Your task to perform on an android device: Search for pizza restaurants on Maps Image 0: 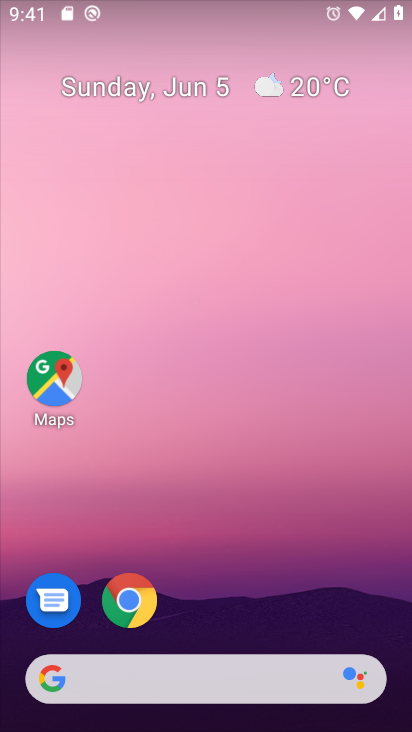
Step 0: click (59, 393)
Your task to perform on an android device: Search for pizza restaurants on Maps Image 1: 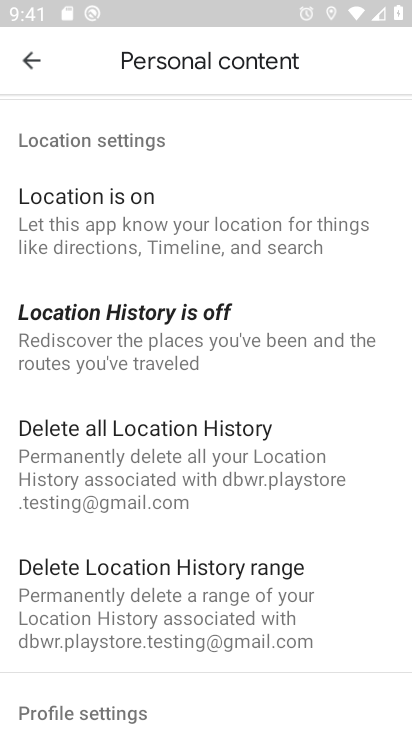
Step 1: click (32, 59)
Your task to perform on an android device: Search for pizza restaurants on Maps Image 2: 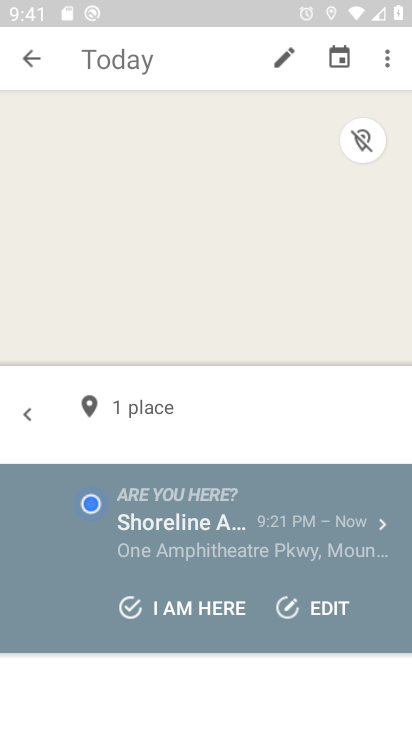
Step 2: click (32, 59)
Your task to perform on an android device: Search for pizza restaurants on Maps Image 3: 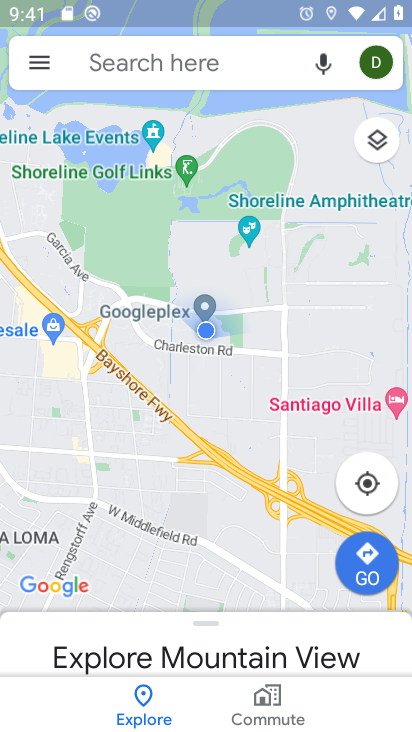
Step 3: click (79, 59)
Your task to perform on an android device: Search for pizza restaurants on Maps Image 4: 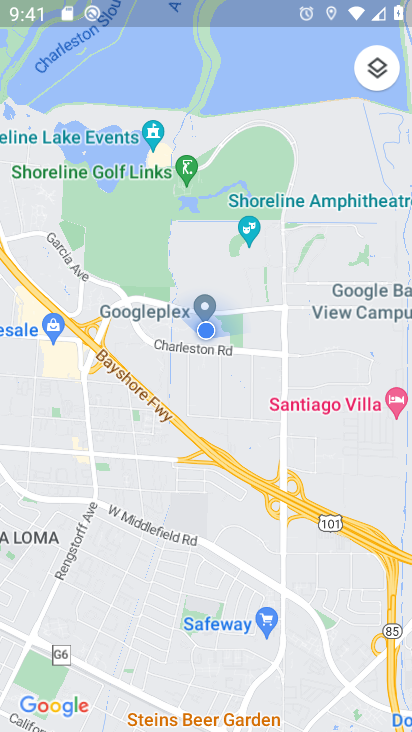
Step 4: click (156, 121)
Your task to perform on an android device: Search for pizza restaurants on Maps Image 5: 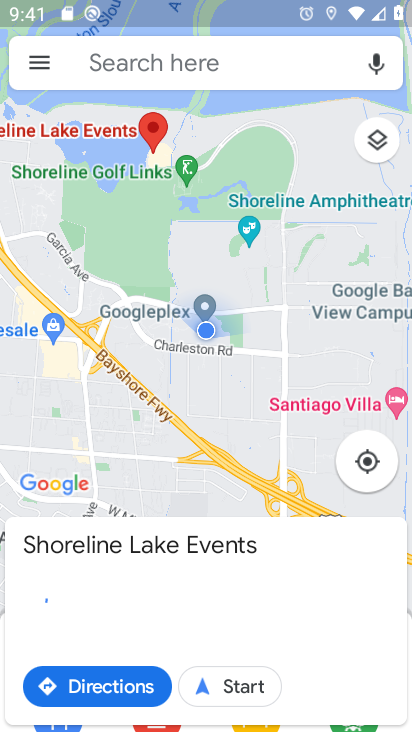
Step 5: click (244, 58)
Your task to perform on an android device: Search for pizza restaurants on Maps Image 6: 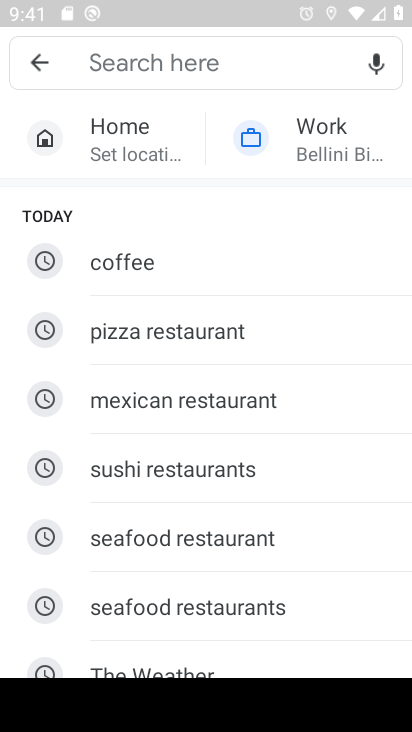
Step 6: click (214, 322)
Your task to perform on an android device: Search for pizza restaurants on Maps Image 7: 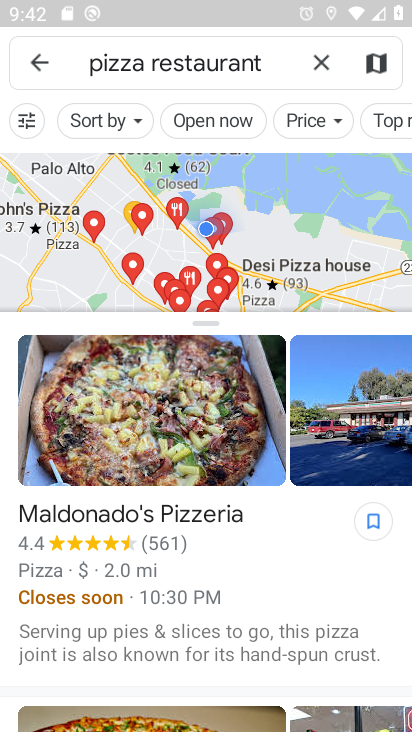
Step 7: task complete